Your task to perform on an android device: search for starred emails in the gmail app Image 0: 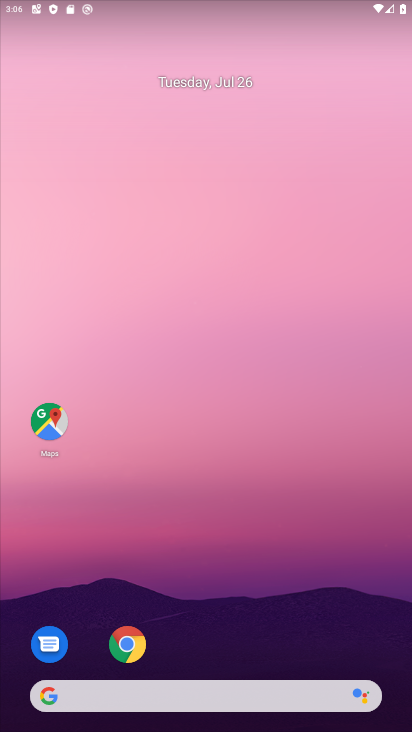
Step 0: drag from (220, 691) to (224, 238)
Your task to perform on an android device: search for starred emails in the gmail app Image 1: 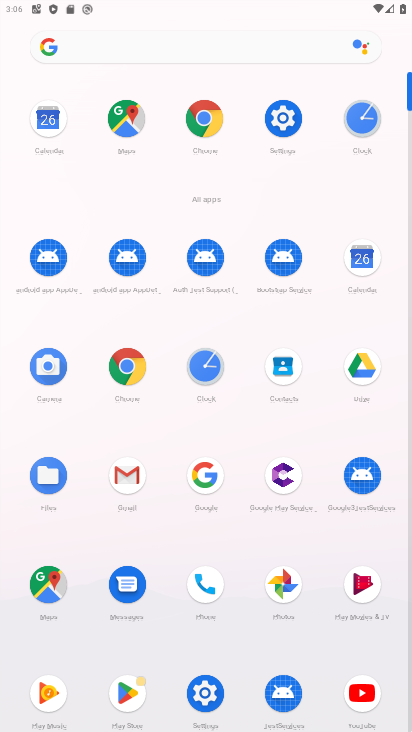
Step 1: click (113, 472)
Your task to perform on an android device: search for starred emails in the gmail app Image 2: 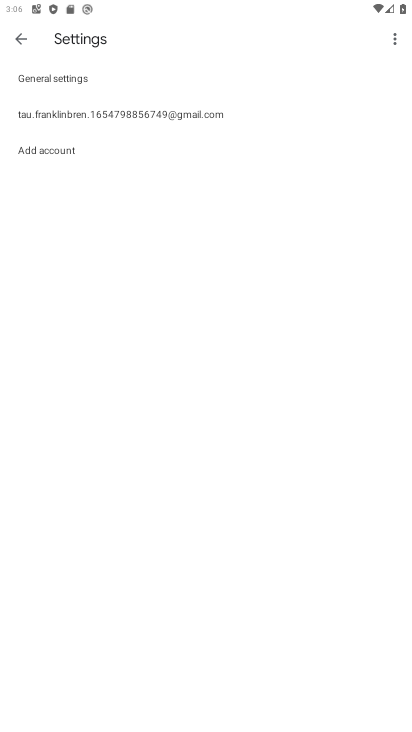
Step 2: click (25, 39)
Your task to perform on an android device: search for starred emails in the gmail app Image 3: 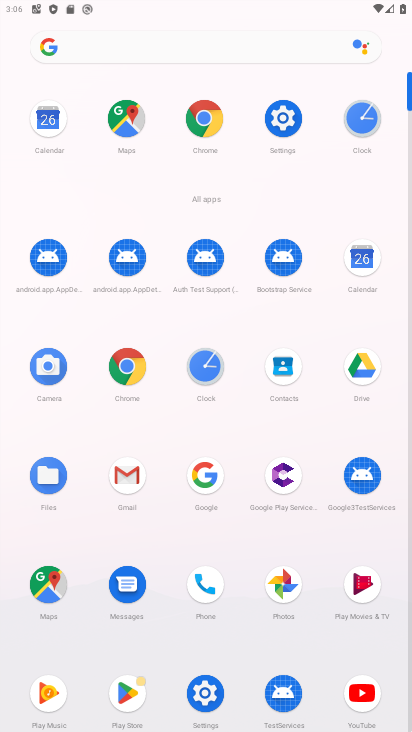
Step 3: click (125, 482)
Your task to perform on an android device: search for starred emails in the gmail app Image 4: 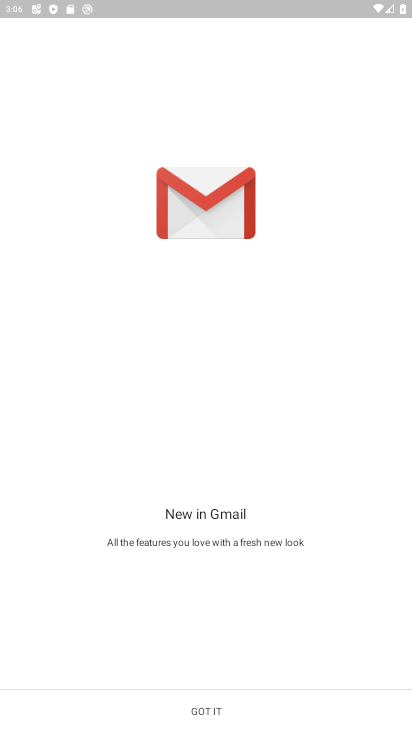
Step 4: click (188, 714)
Your task to perform on an android device: search for starred emails in the gmail app Image 5: 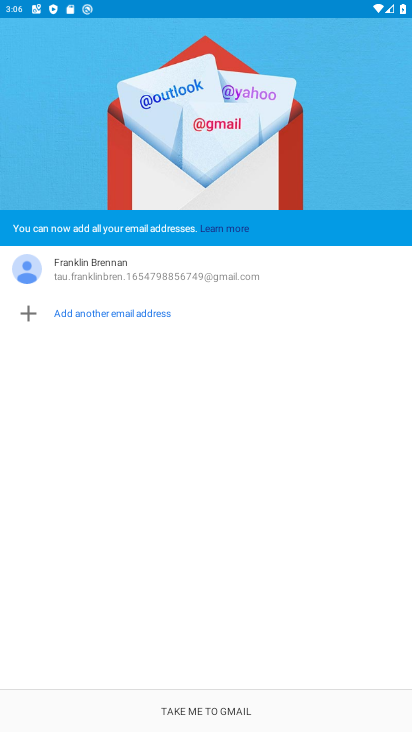
Step 5: click (188, 714)
Your task to perform on an android device: search for starred emails in the gmail app Image 6: 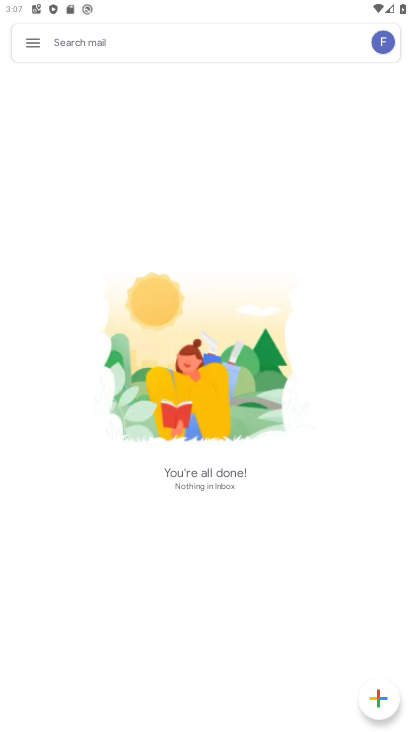
Step 6: click (23, 45)
Your task to perform on an android device: search for starred emails in the gmail app Image 7: 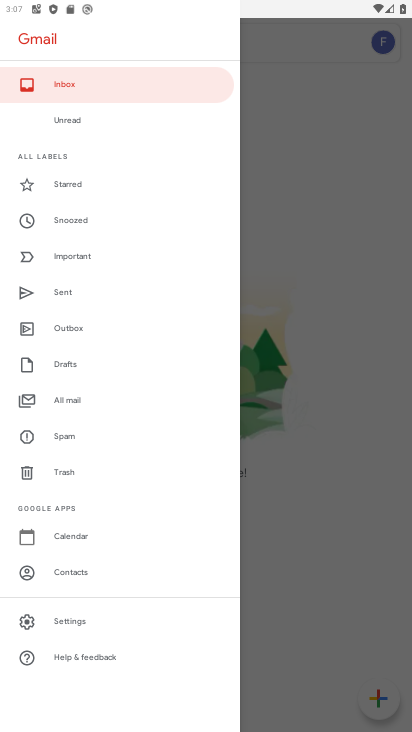
Step 7: click (71, 186)
Your task to perform on an android device: search for starred emails in the gmail app Image 8: 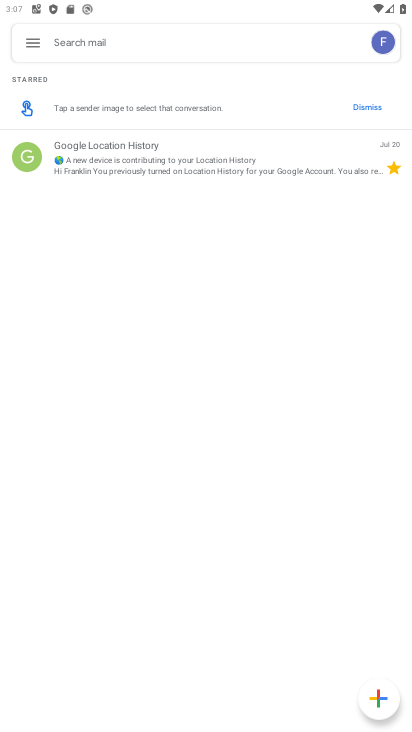
Step 8: task complete